Your task to perform on an android device: Go to privacy settings Image 0: 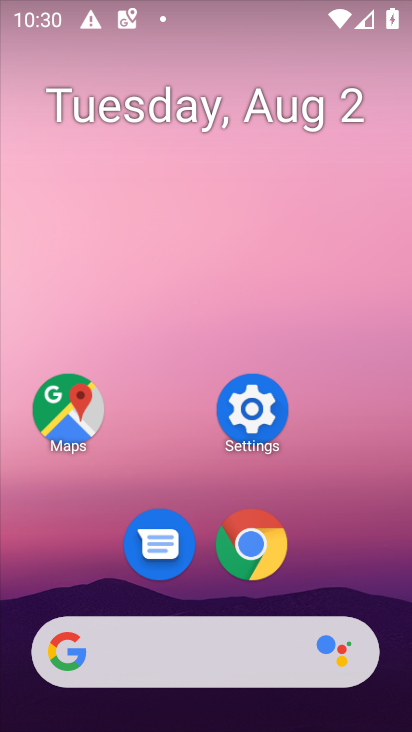
Step 0: click (254, 412)
Your task to perform on an android device: Go to privacy settings Image 1: 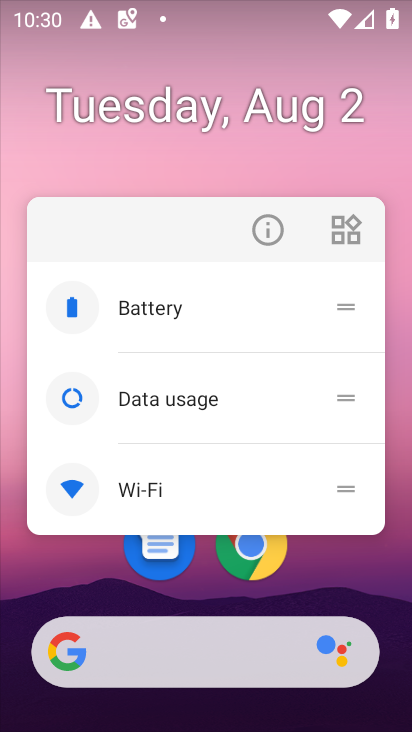
Step 1: click (374, 564)
Your task to perform on an android device: Go to privacy settings Image 2: 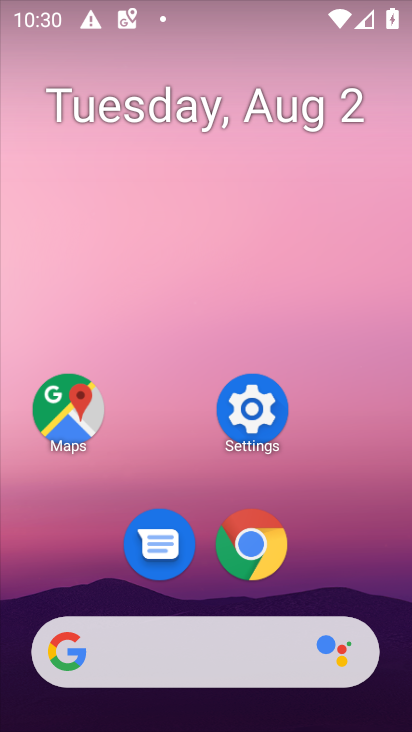
Step 2: click (256, 408)
Your task to perform on an android device: Go to privacy settings Image 3: 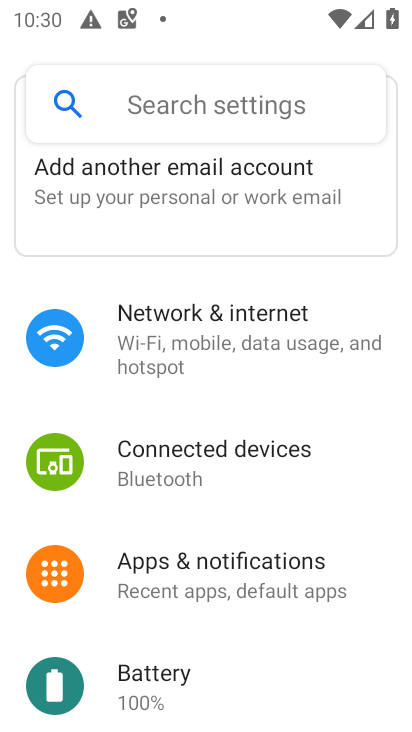
Step 3: drag from (236, 603) to (306, 141)
Your task to perform on an android device: Go to privacy settings Image 4: 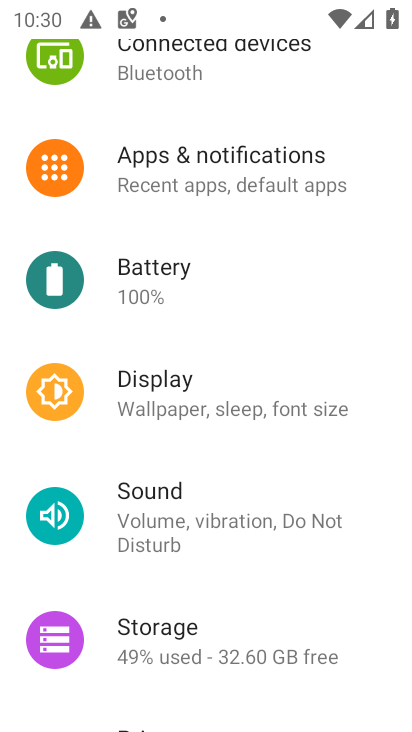
Step 4: drag from (211, 618) to (215, 186)
Your task to perform on an android device: Go to privacy settings Image 5: 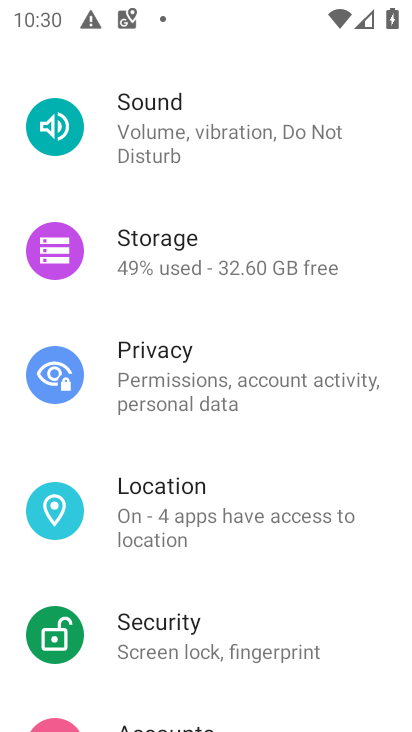
Step 5: click (154, 367)
Your task to perform on an android device: Go to privacy settings Image 6: 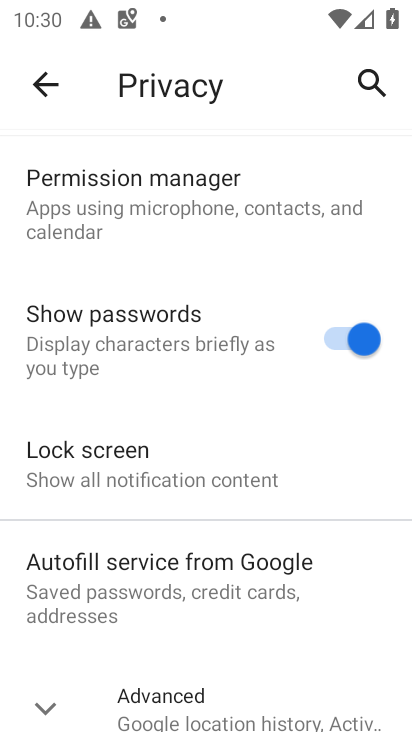
Step 6: task complete